Your task to perform on an android device: turn notification dots on Image 0: 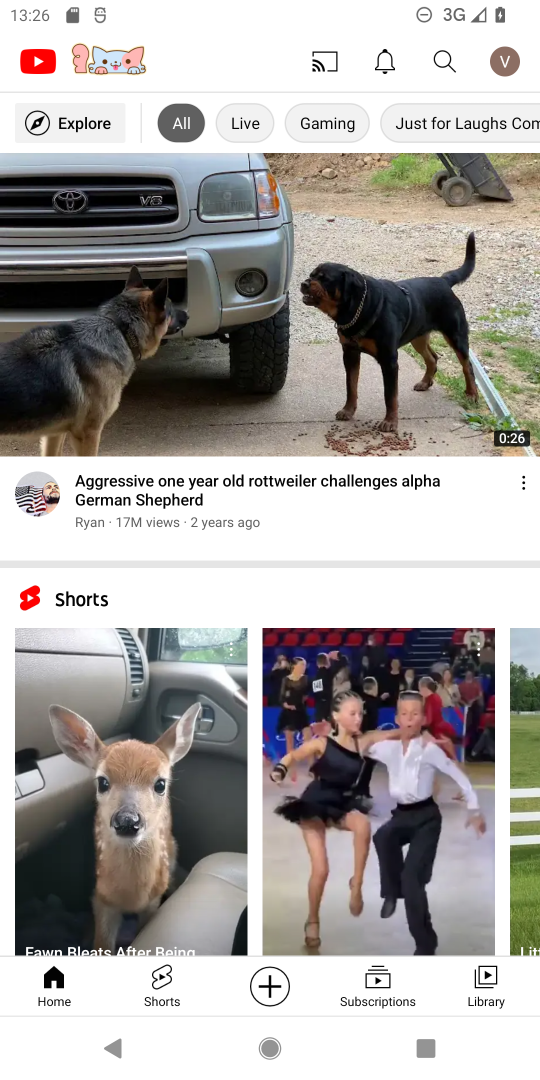
Step 0: press home button
Your task to perform on an android device: turn notification dots on Image 1: 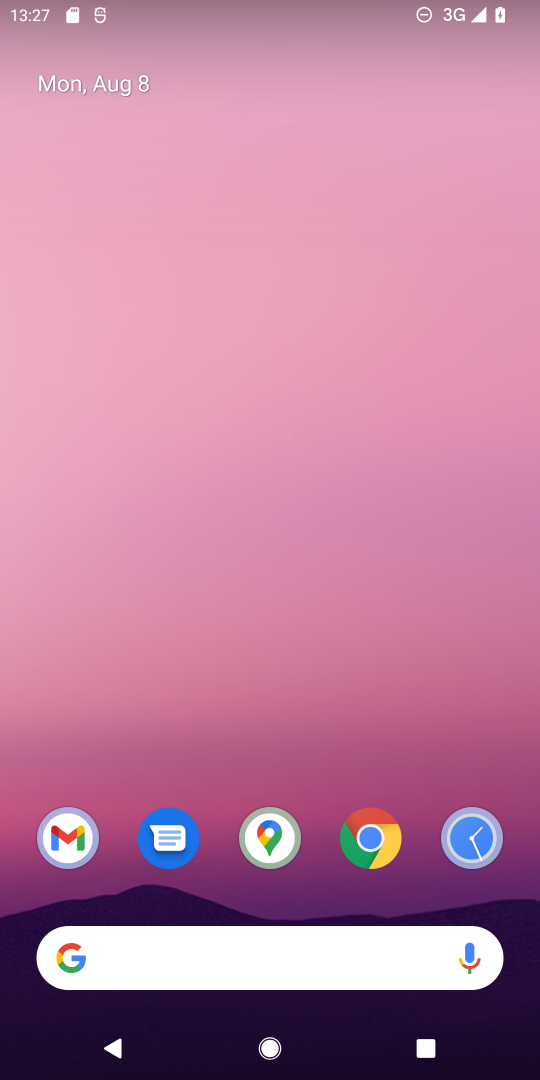
Step 1: drag from (242, 759) to (255, 201)
Your task to perform on an android device: turn notification dots on Image 2: 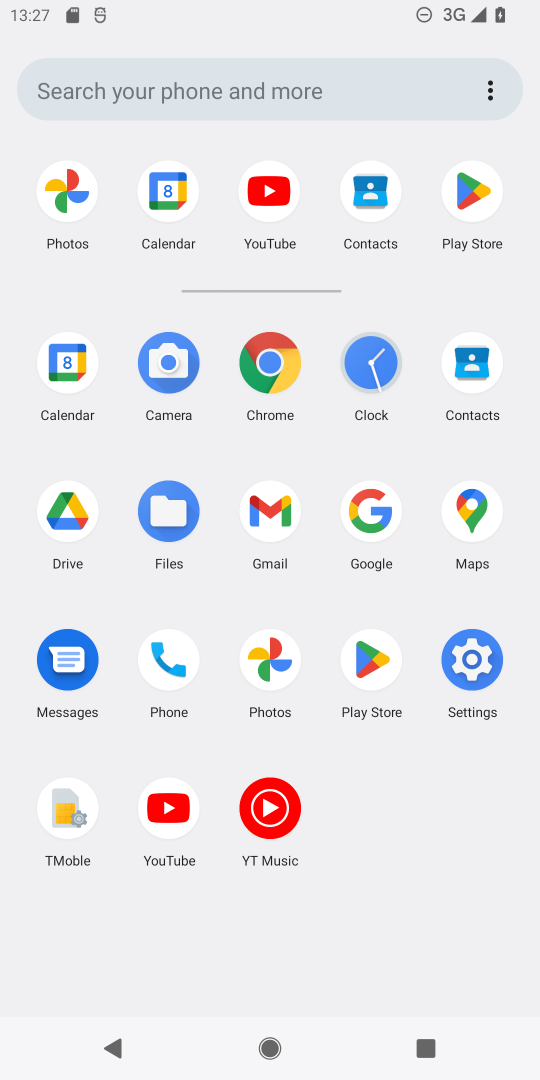
Step 2: click (474, 659)
Your task to perform on an android device: turn notification dots on Image 3: 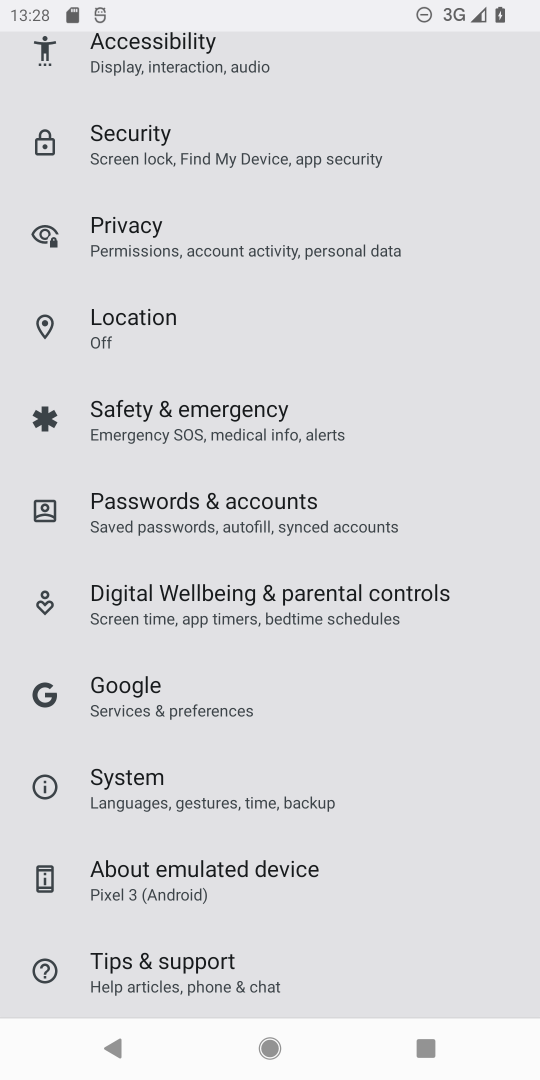
Step 3: drag from (360, 297) to (371, 999)
Your task to perform on an android device: turn notification dots on Image 4: 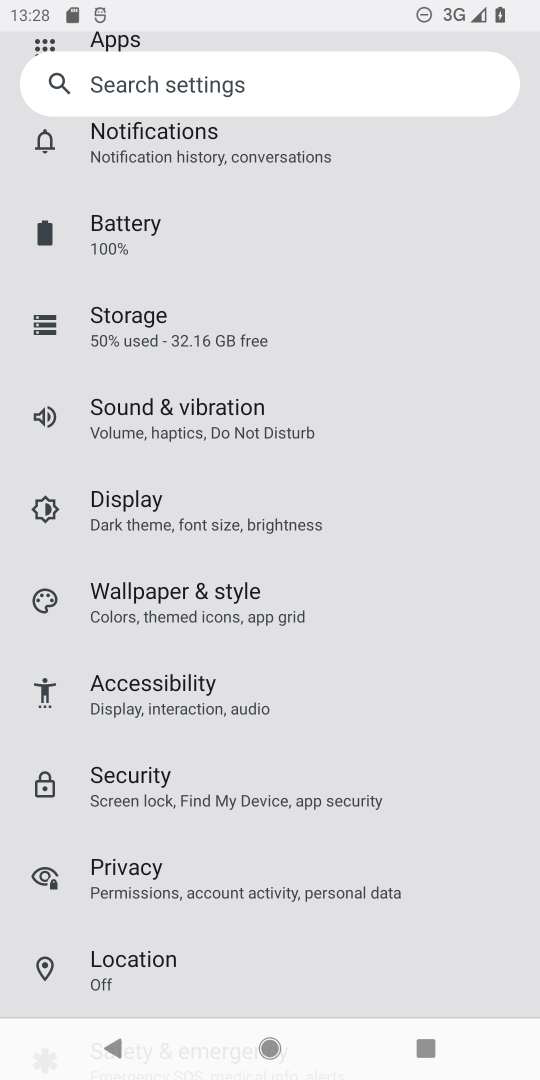
Step 4: click (147, 146)
Your task to perform on an android device: turn notification dots on Image 5: 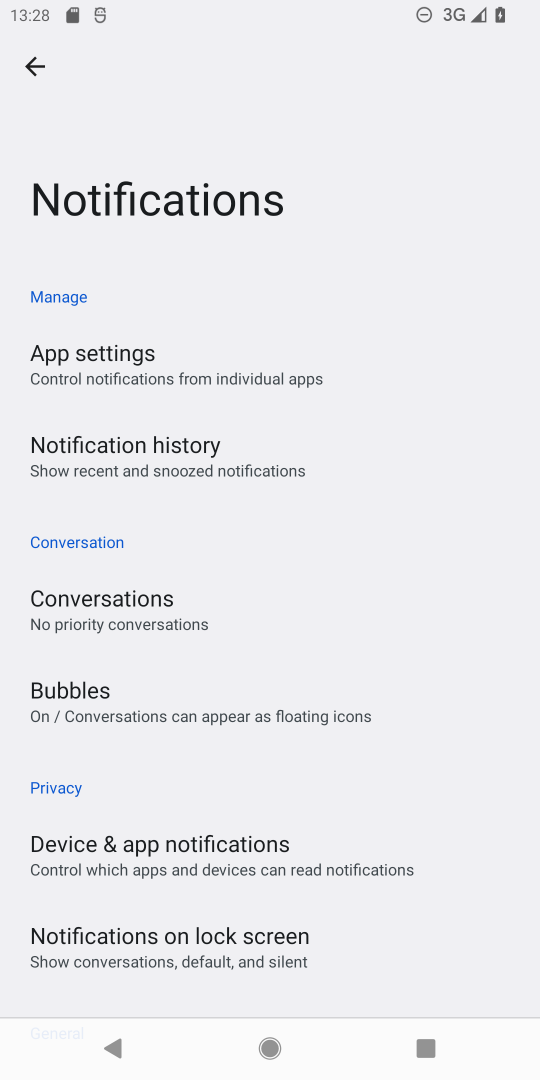
Step 5: drag from (409, 913) to (448, 381)
Your task to perform on an android device: turn notification dots on Image 6: 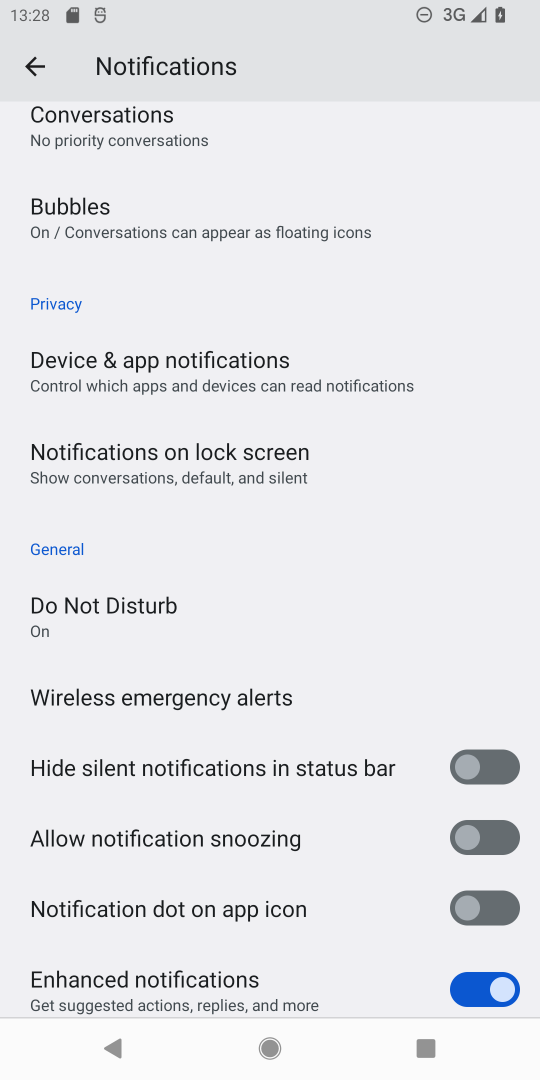
Step 6: click (468, 906)
Your task to perform on an android device: turn notification dots on Image 7: 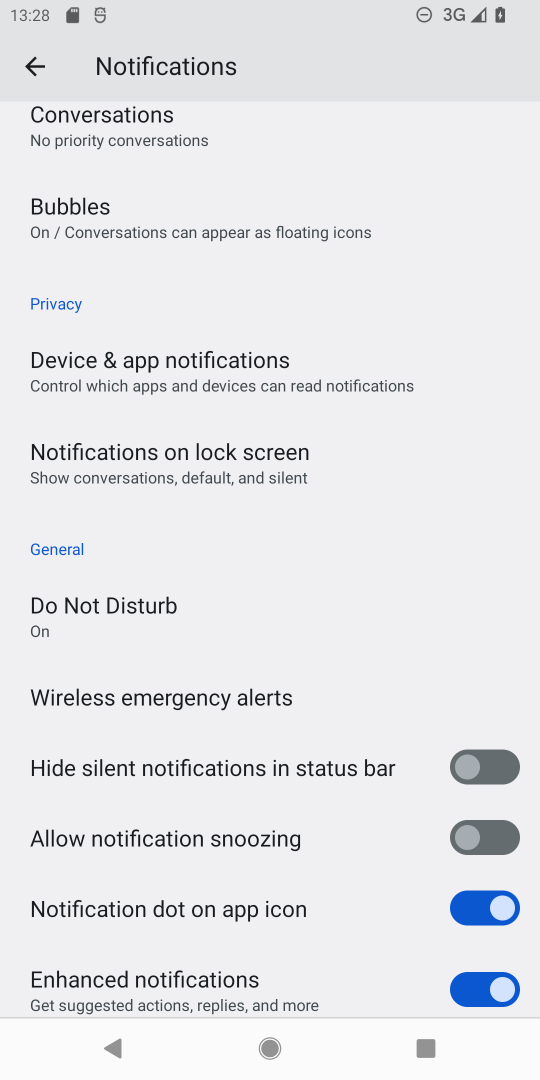
Step 7: task complete